Your task to perform on an android device: Go to calendar. Show me events next week Image 0: 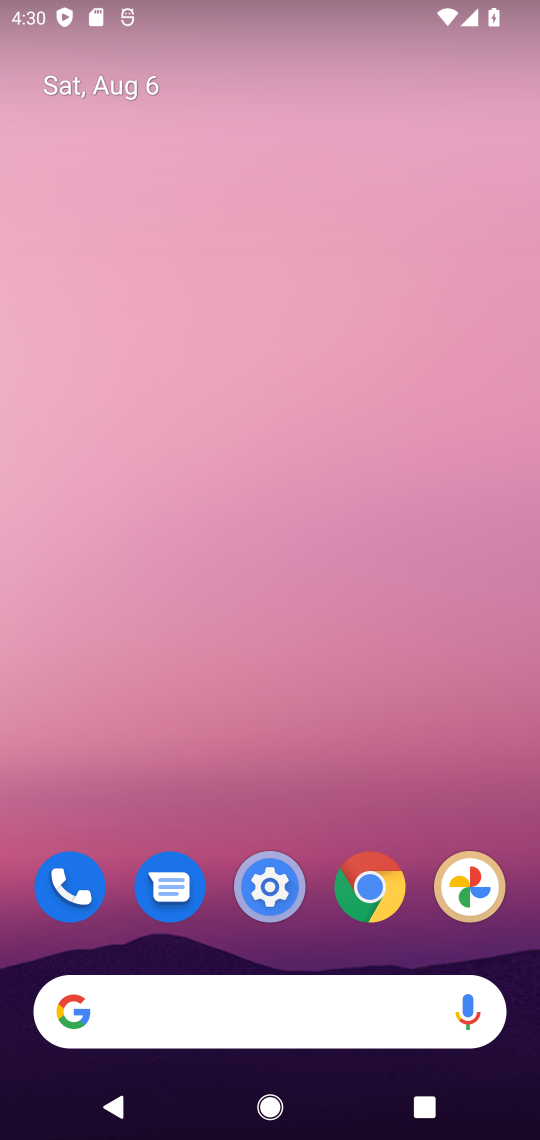
Step 0: click (252, 198)
Your task to perform on an android device: Go to calendar. Show me events next week Image 1: 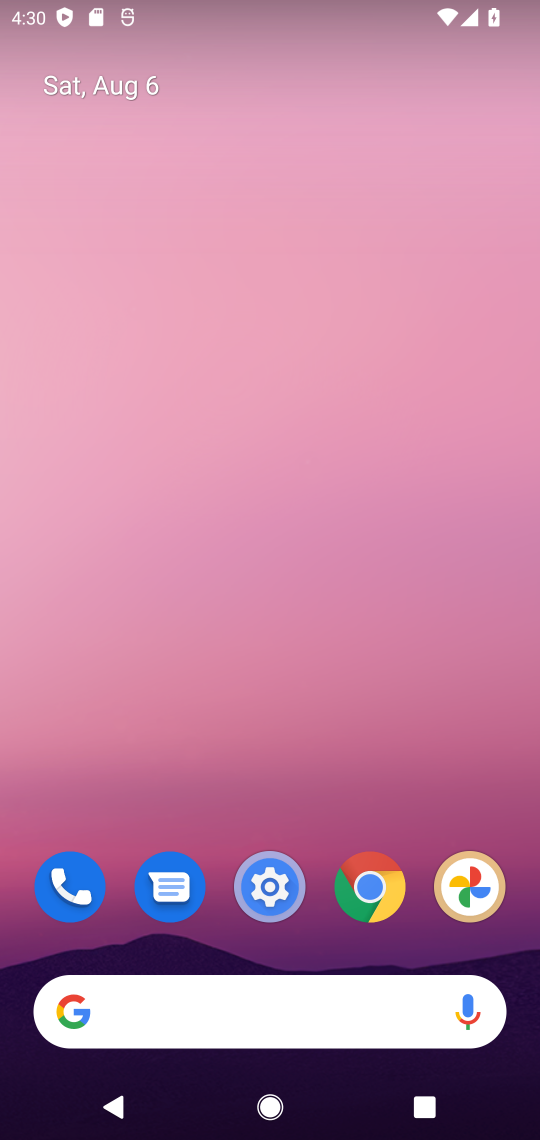
Step 1: drag from (275, 995) to (202, 4)
Your task to perform on an android device: Go to calendar. Show me events next week Image 2: 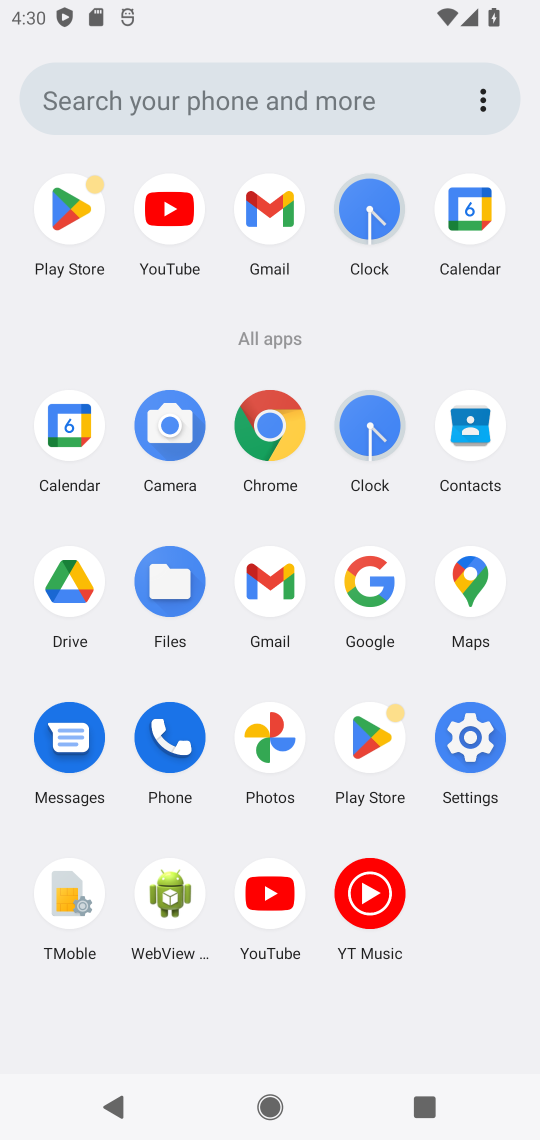
Step 2: click (79, 400)
Your task to perform on an android device: Go to calendar. Show me events next week Image 3: 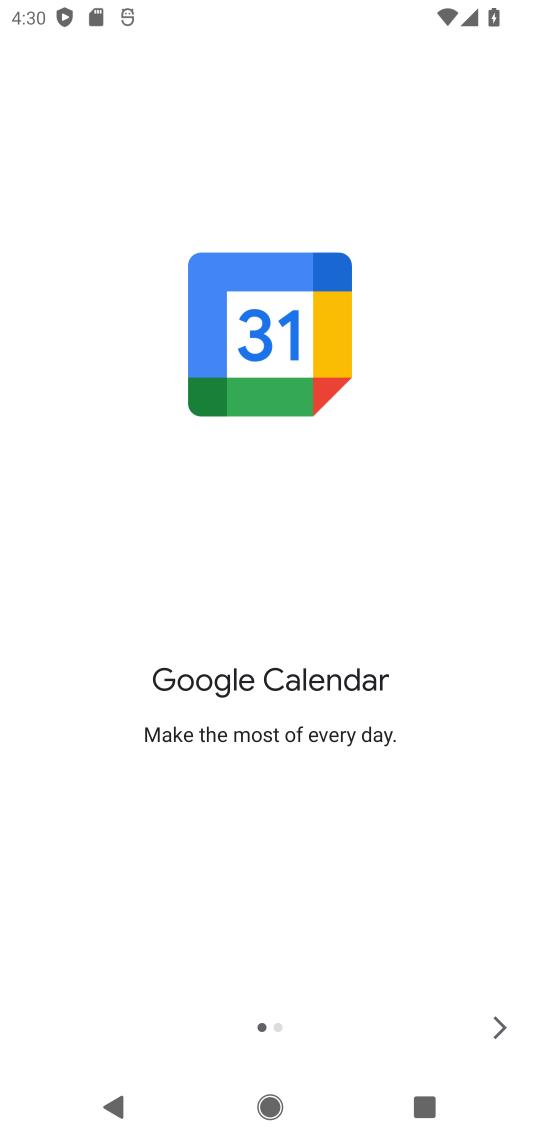
Step 3: click (496, 1030)
Your task to perform on an android device: Go to calendar. Show me events next week Image 4: 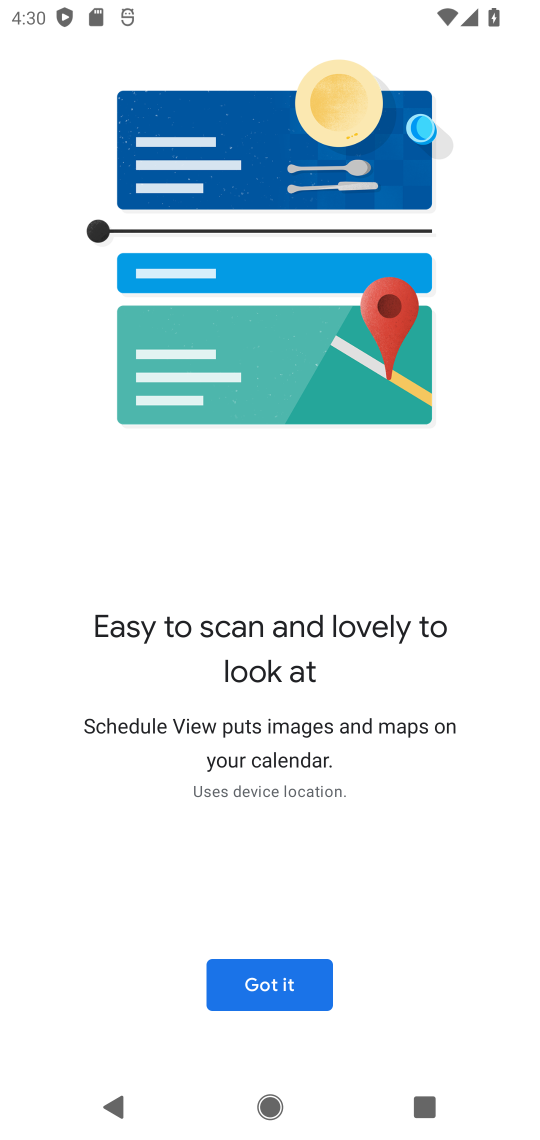
Step 4: click (297, 980)
Your task to perform on an android device: Go to calendar. Show me events next week Image 5: 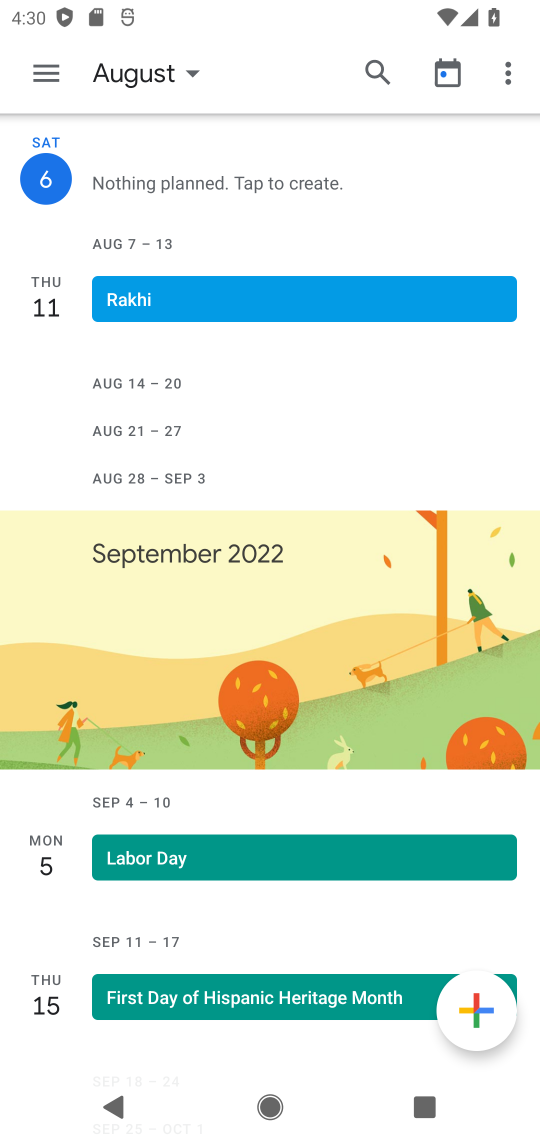
Step 5: click (22, 98)
Your task to perform on an android device: Go to calendar. Show me events next week Image 6: 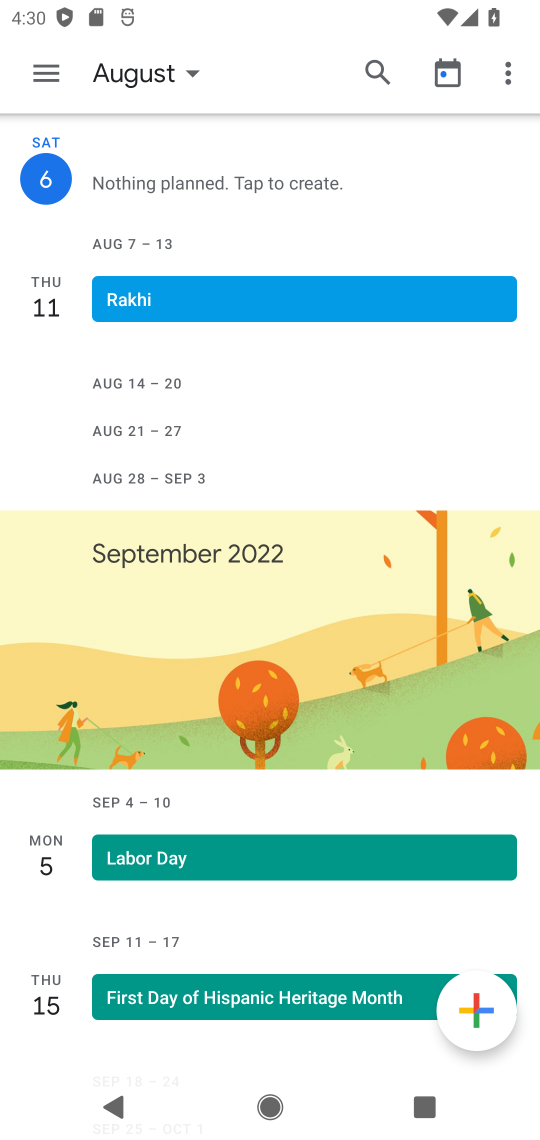
Step 6: click (40, 86)
Your task to perform on an android device: Go to calendar. Show me events next week Image 7: 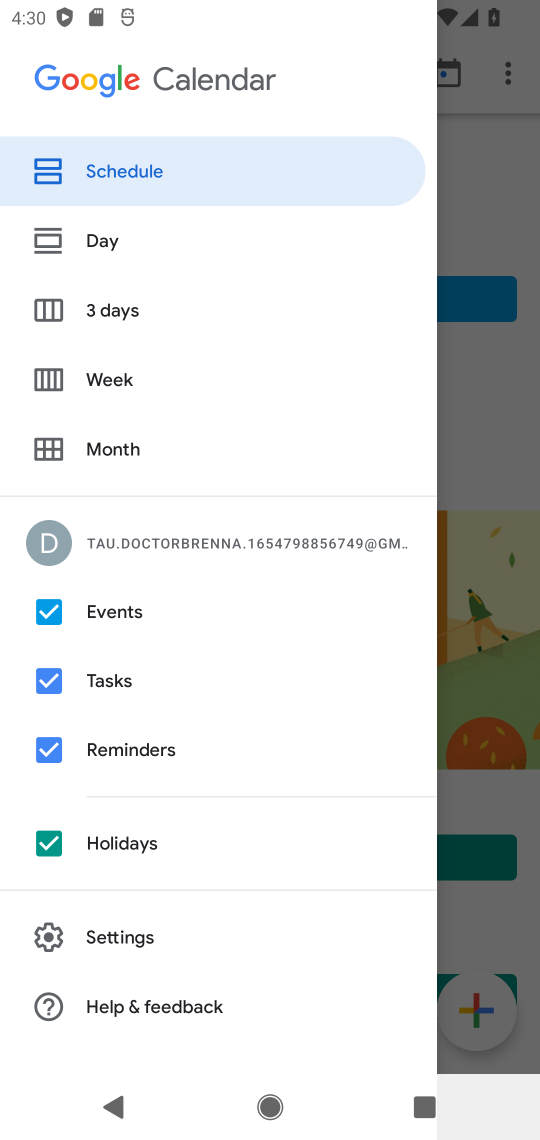
Step 7: click (130, 374)
Your task to perform on an android device: Go to calendar. Show me events next week Image 8: 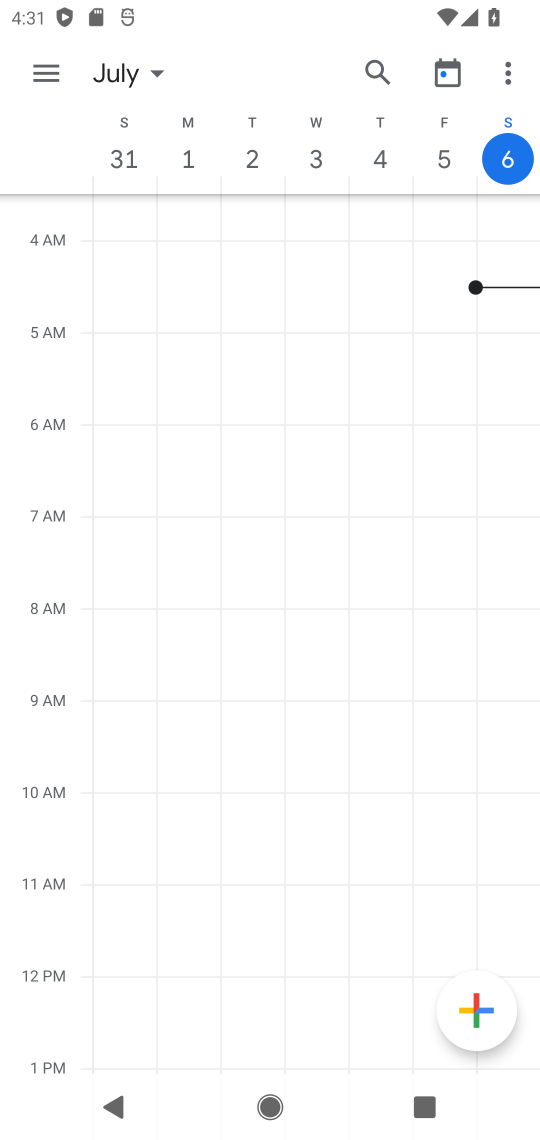
Step 8: task complete